Your task to perform on an android device: see tabs open on other devices in the chrome app Image 0: 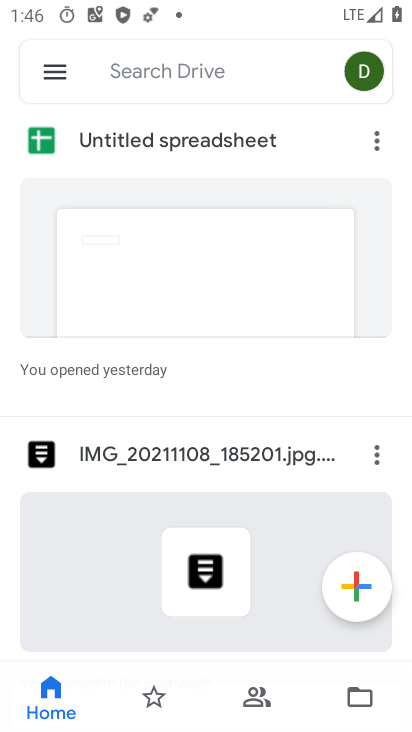
Step 0: press home button
Your task to perform on an android device: see tabs open on other devices in the chrome app Image 1: 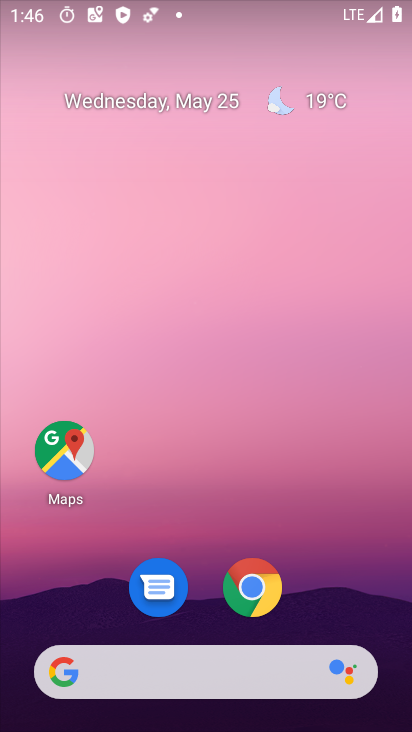
Step 1: click (255, 587)
Your task to perform on an android device: see tabs open on other devices in the chrome app Image 2: 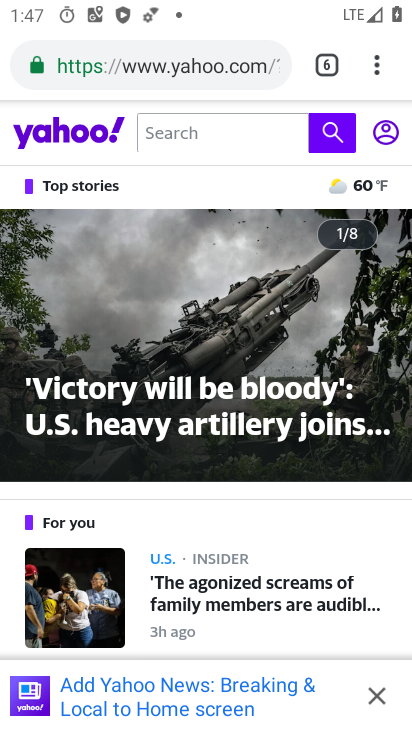
Step 2: click (376, 66)
Your task to perform on an android device: see tabs open on other devices in the chrome app Image 3: 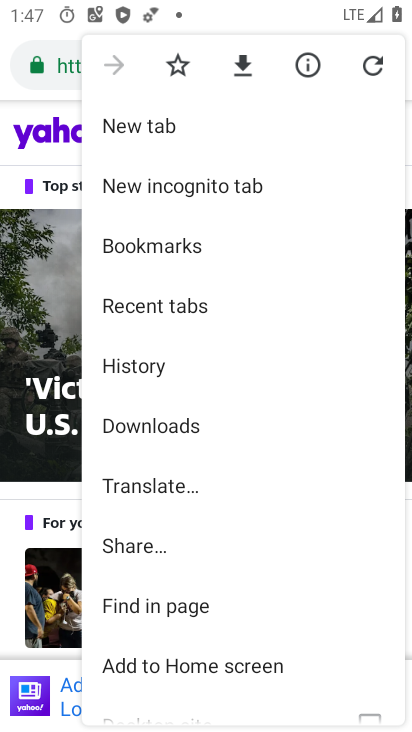
Step 3: click (173, 298)
Your task to perform on an android device: see tabs open on other devices in the chrome app Image 4: 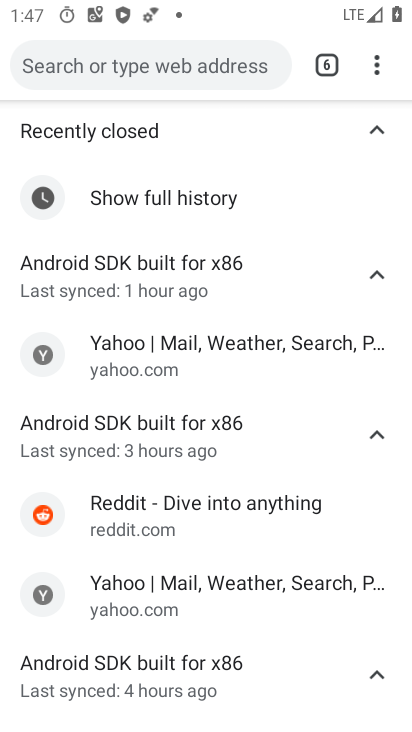
Step 4: task complete